Your task to perform on an android device: Open Android settings Image 0: 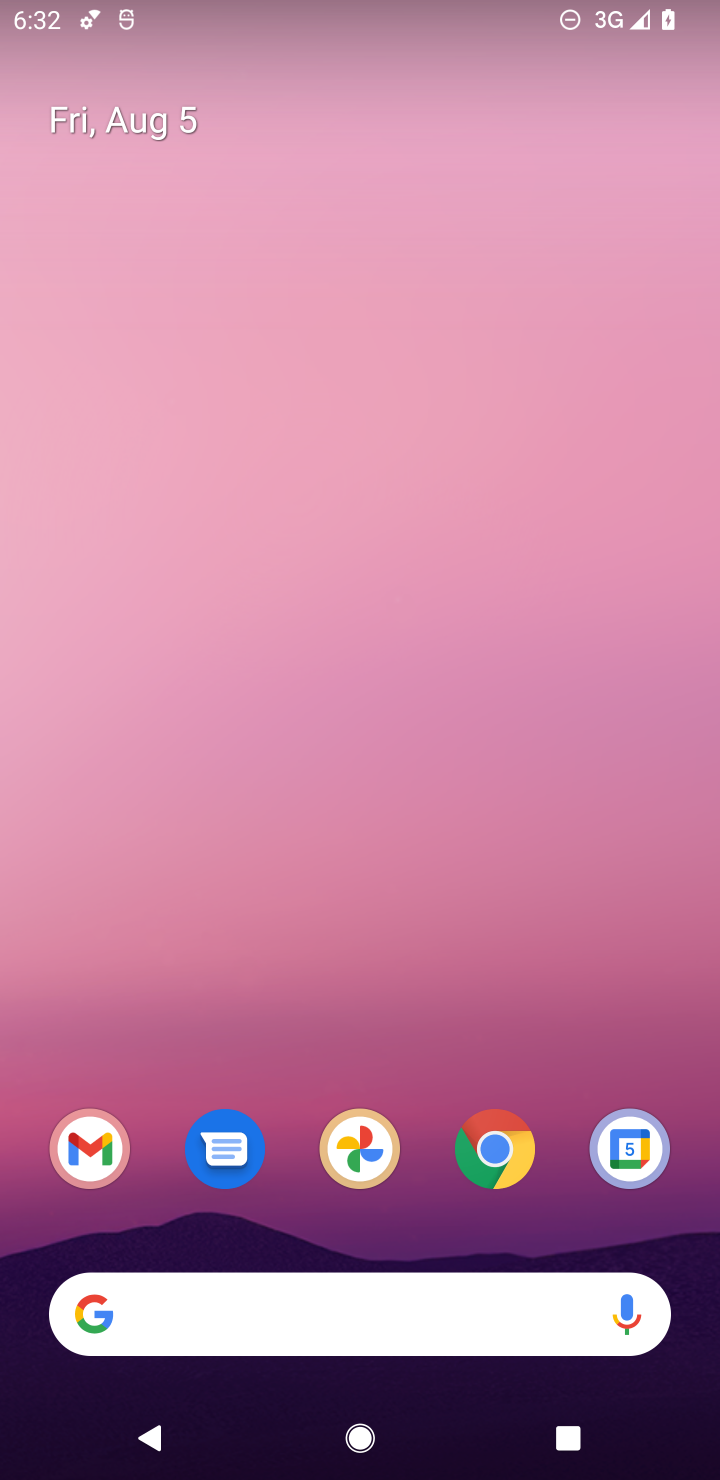
Step 0: drag from (272, 1055) to (462, 14)
Your task to perform on an android device: Open Android settings Image 1: 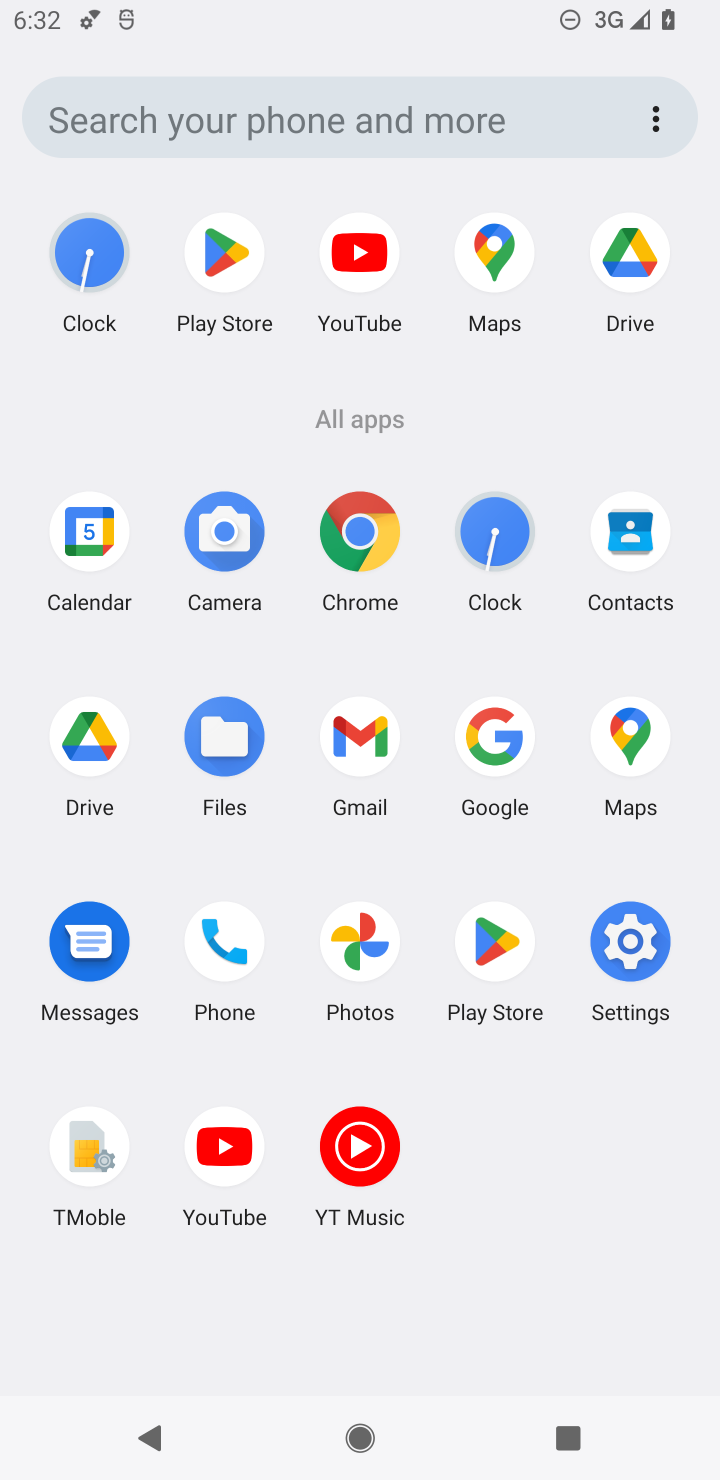
Step 1: click (613, 945)
Your task to perform on an android device: Open Android settings Image 2: 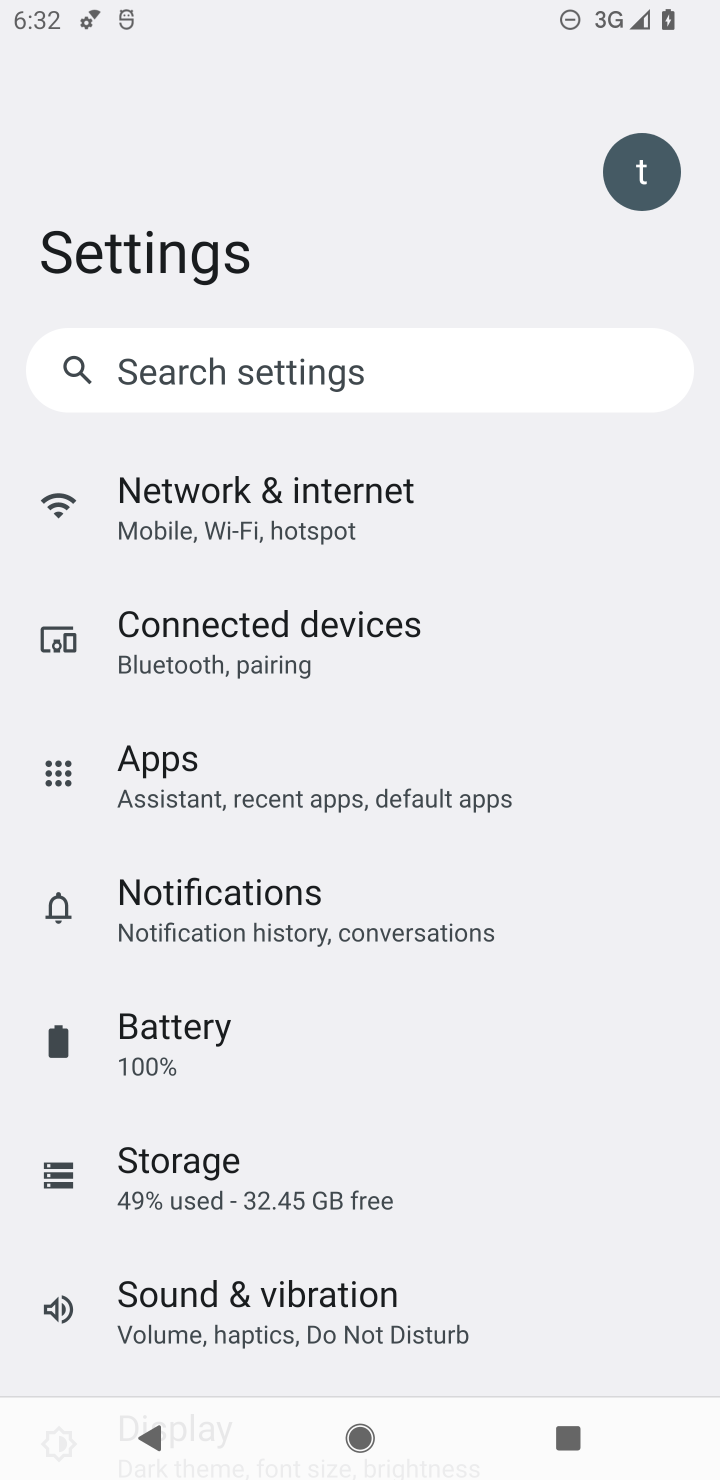
Step 2: drag from (450, 1166) to (456, 147)
Your task to perform on an android device: Open Android settings Image 3: 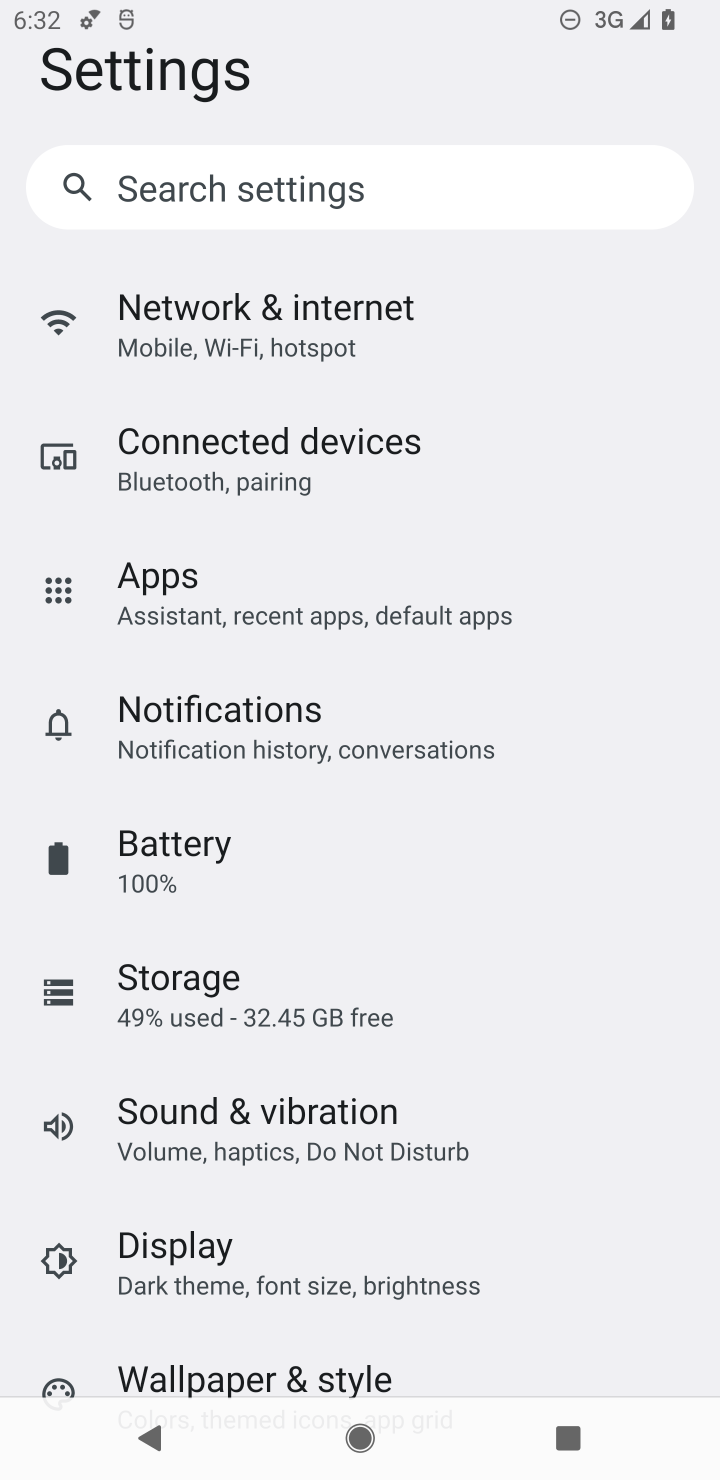
Step 3: drag from (521, 1148) to (569, 504)
Your task to perform on an android device: Open Android settings Image 4: 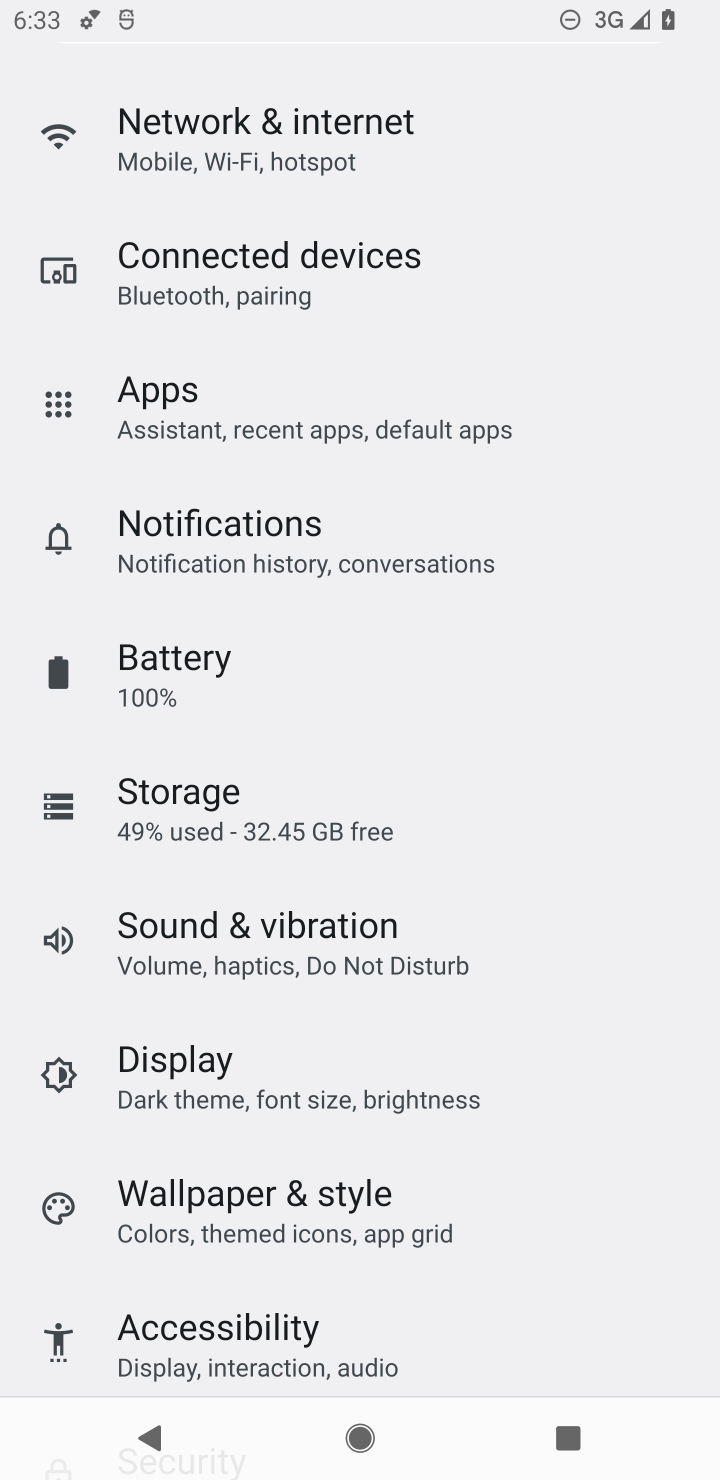
Step 4: drag from (543, 771) to (616, 81)
Your task to perform on an android device: Open Android settings Image 5: 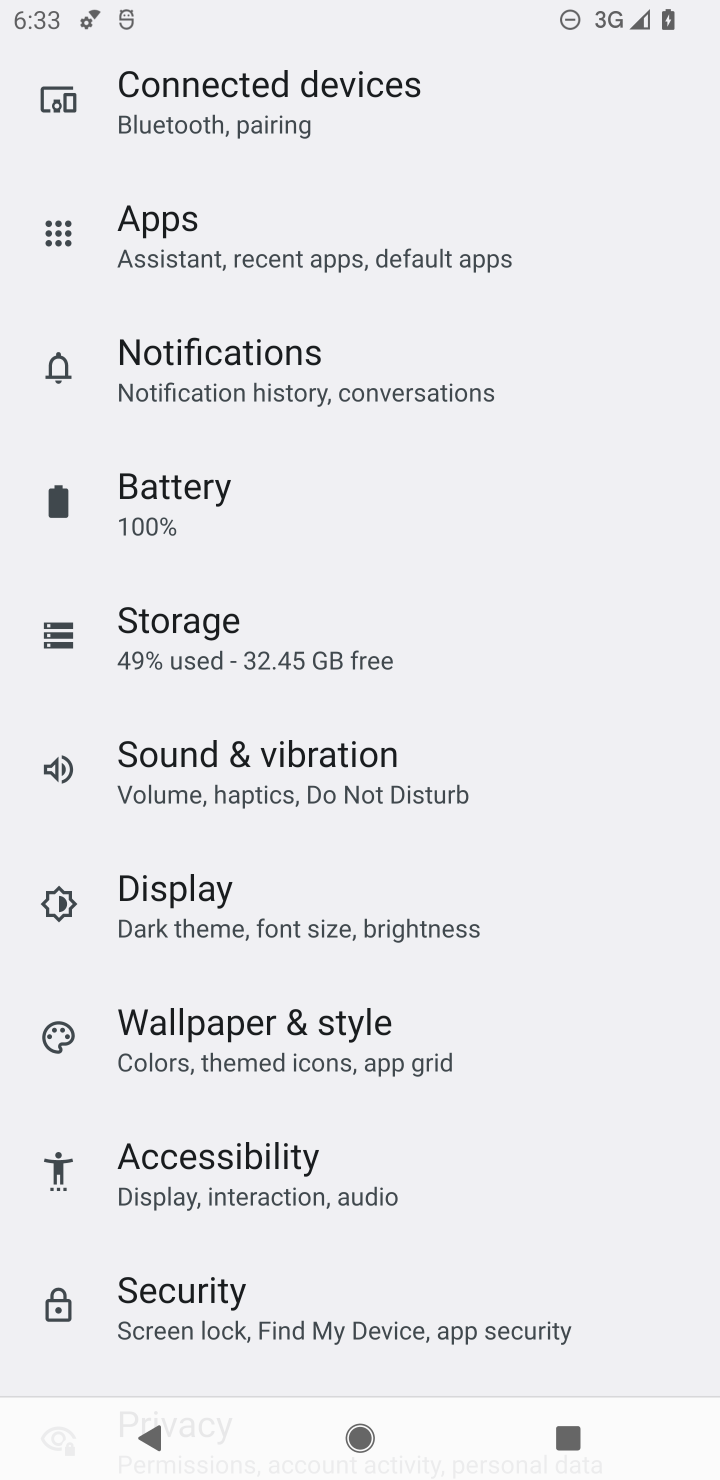
Step 5: drag from (559, 1136) to (419, 139)
Your task to perform on an android device: Open Android settings Image 6: 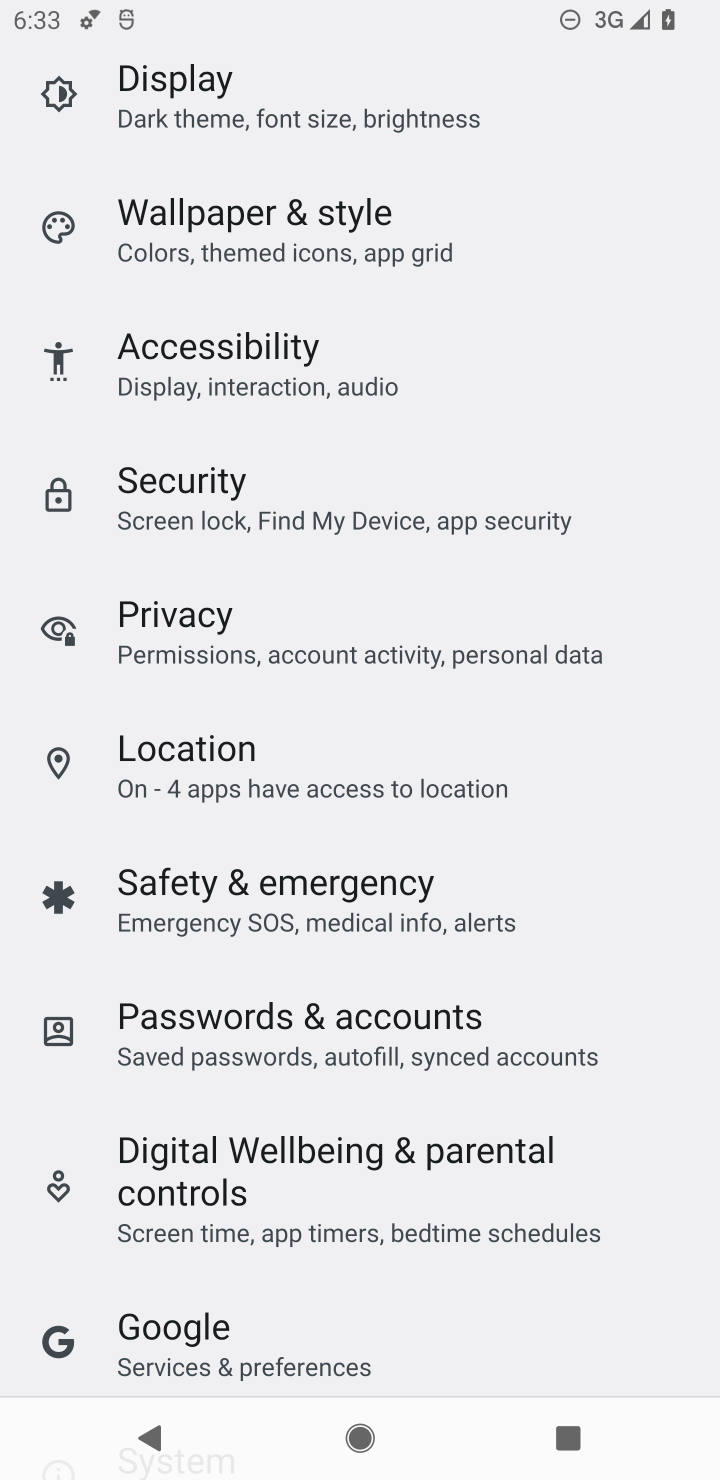
Step 6: drag from (584, 1318) to (534, 634)
Your task to perform on an android device: Open Android settings Image 7: 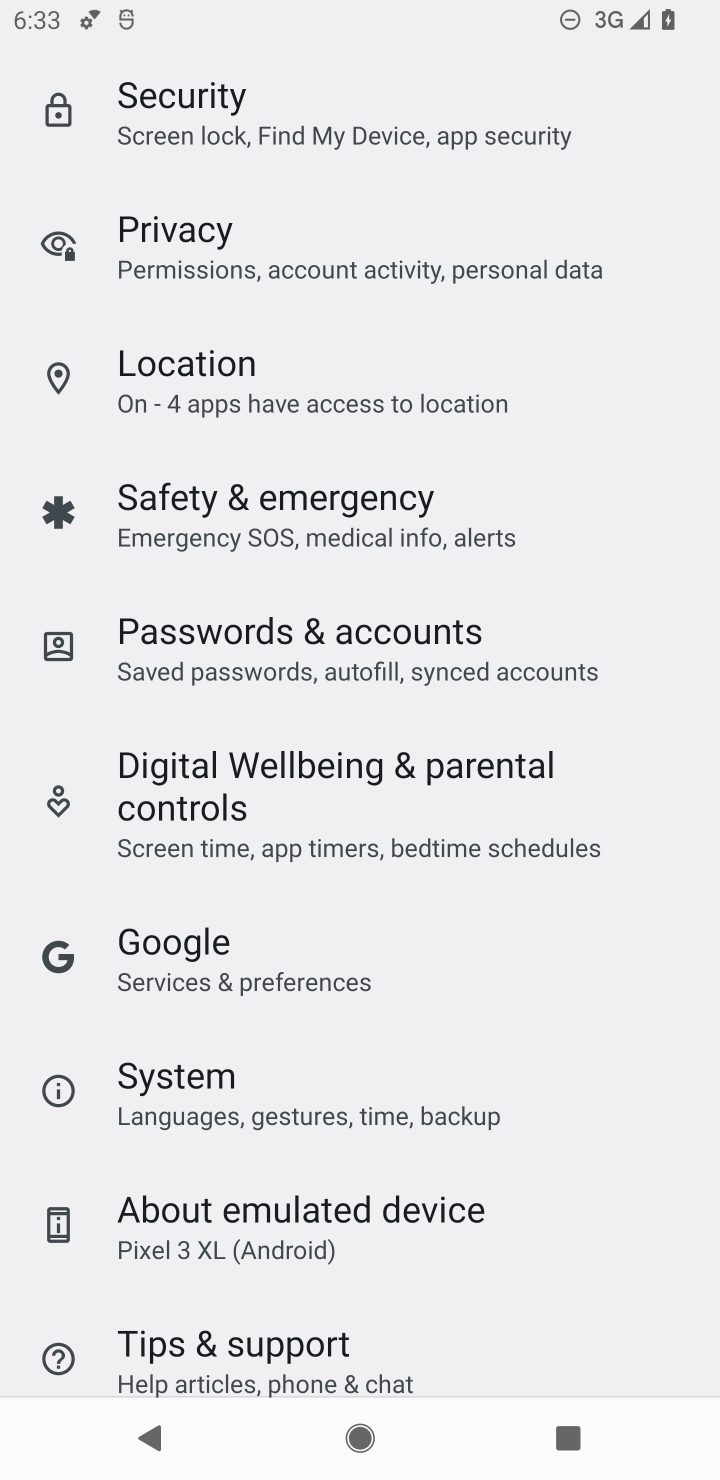
Step 7: drag from (597, 963) to (542, 307)
Your task to perform on an android device: Open Android settings Image 8: 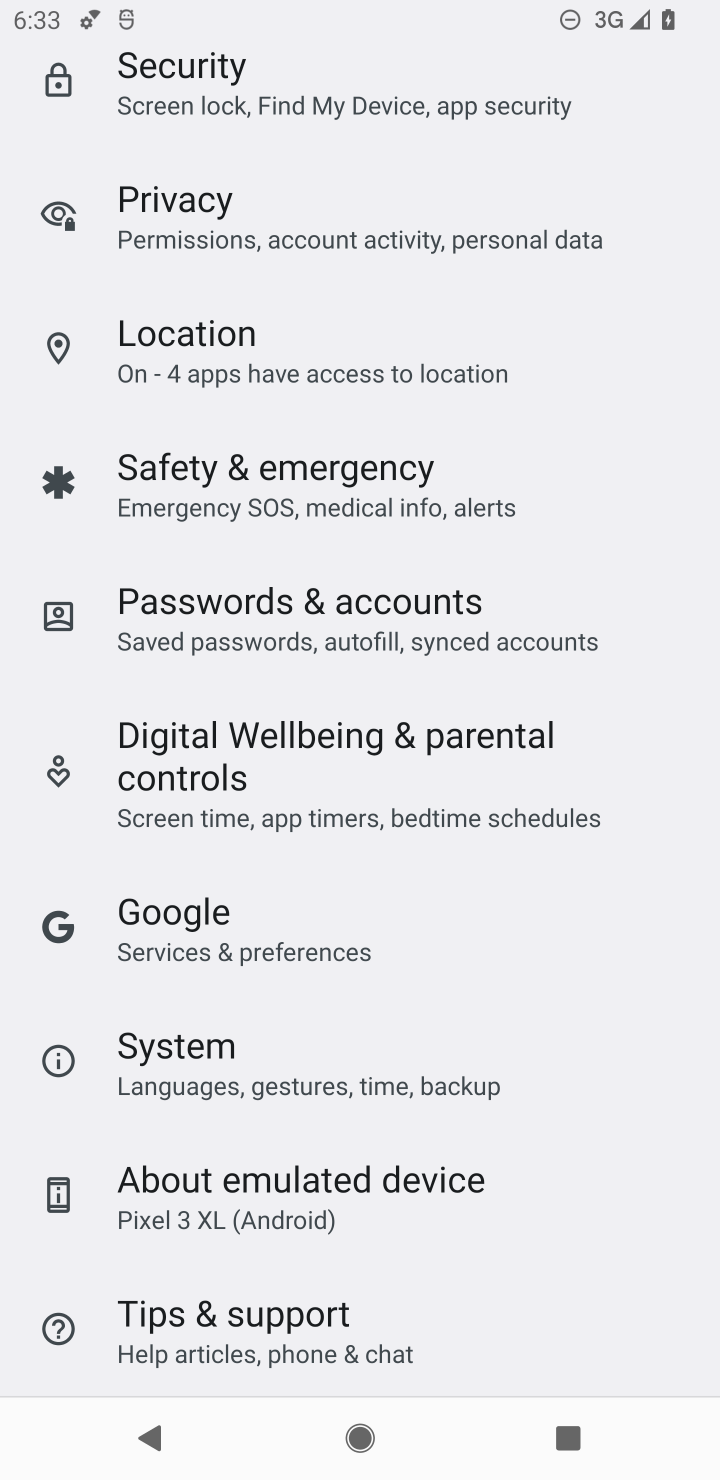
Step 8: click (333, 1177)
Your task to perform on an android device: Open Android settings Image 9: 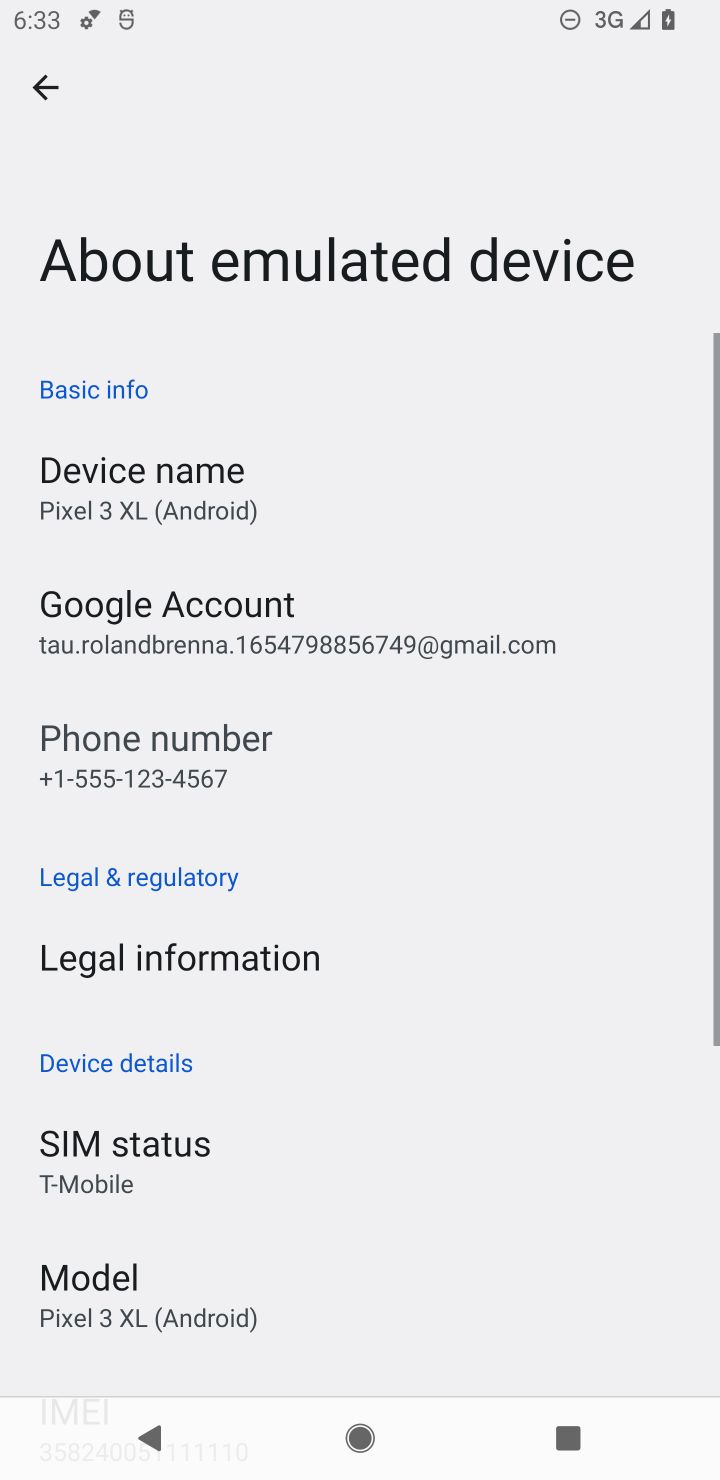
Step 9: task complete